Your task to perform on an android device: turn on wifi Image 0: 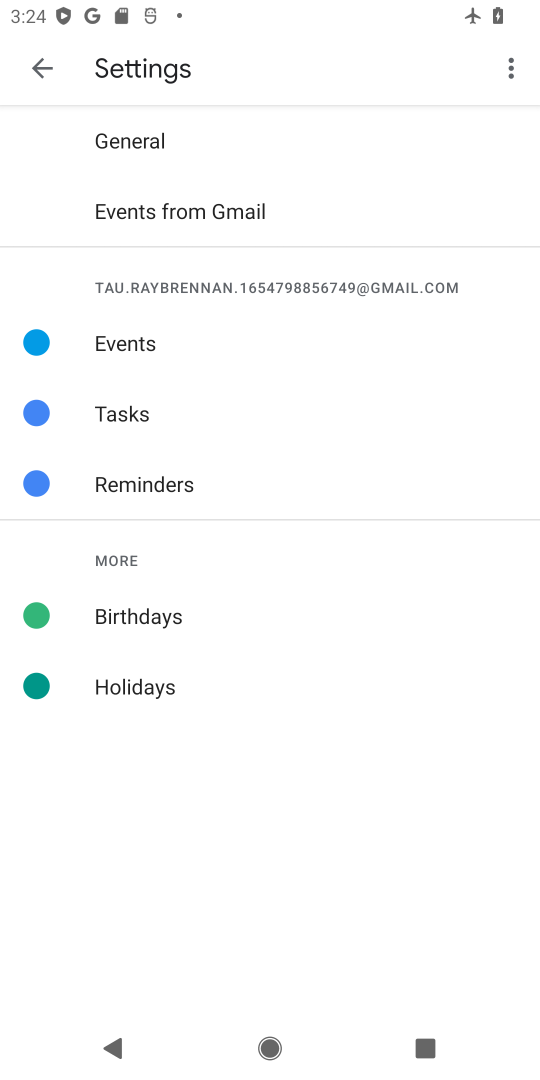
Step 0: press home button
Your task to perform on an android device: turn on wifi Image 1: 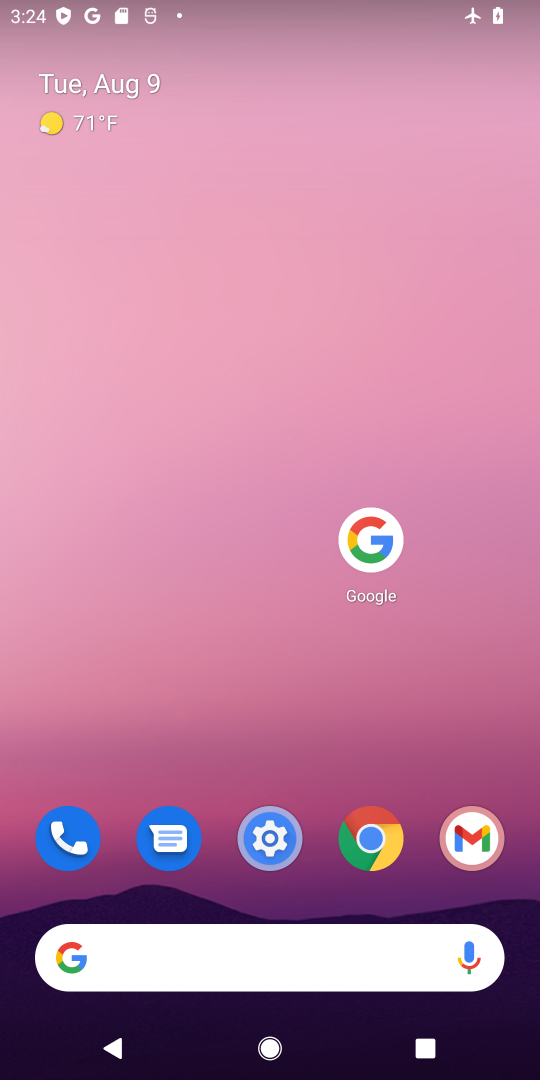
Step 1: drag from (260, 737) to (266, 10)
Your task to perform on an android device: turn on wifi Image 2: 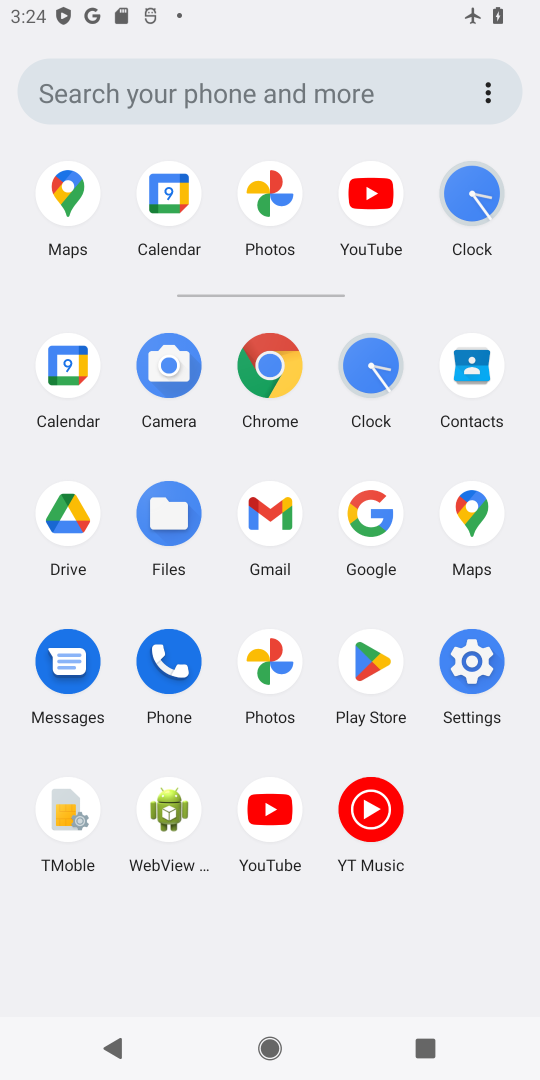
Step 2: click (482, 663)
Your task to perform on an android device: turn on wifi Image 3: 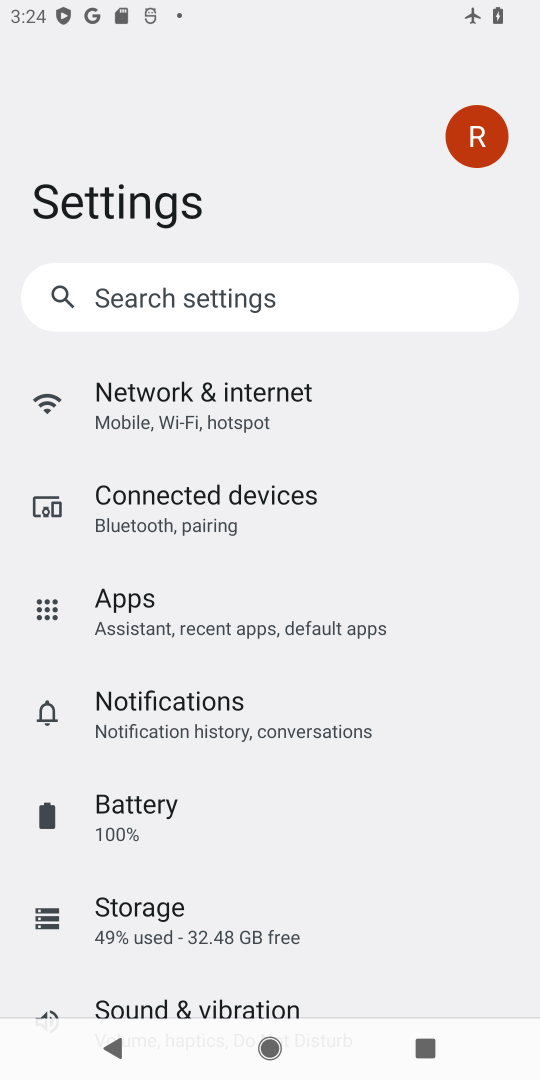
Step 3: click (228, 403)
Your task to perform on an android device: turn on wifi Image 4: 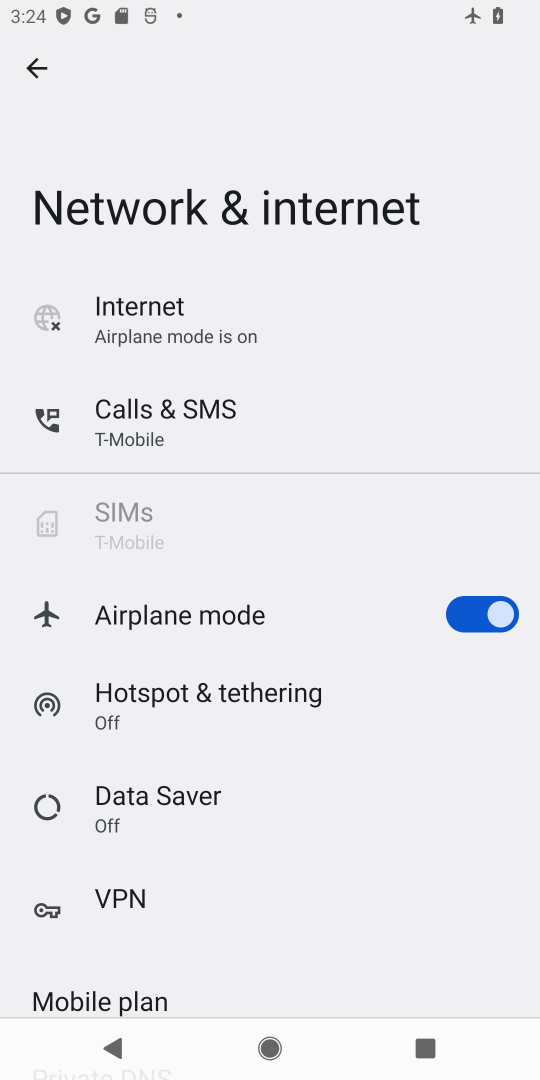
Step 4: click (180, 332)
Your task to perform on an android device: turn on wifi Image 5: 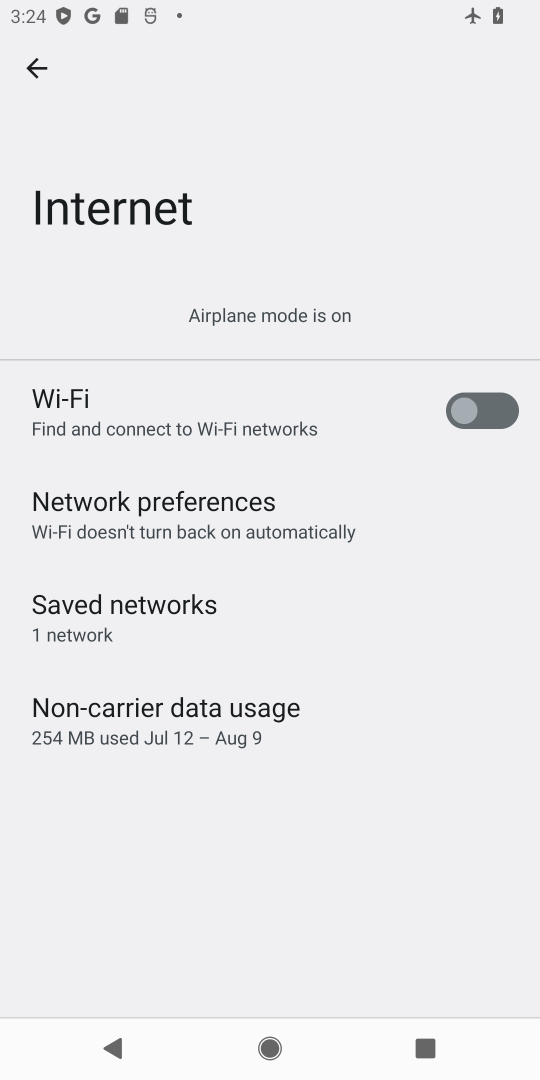
Step 5: click (515, 410)
Your task to perform on an android device: turn on wifi Image 6: 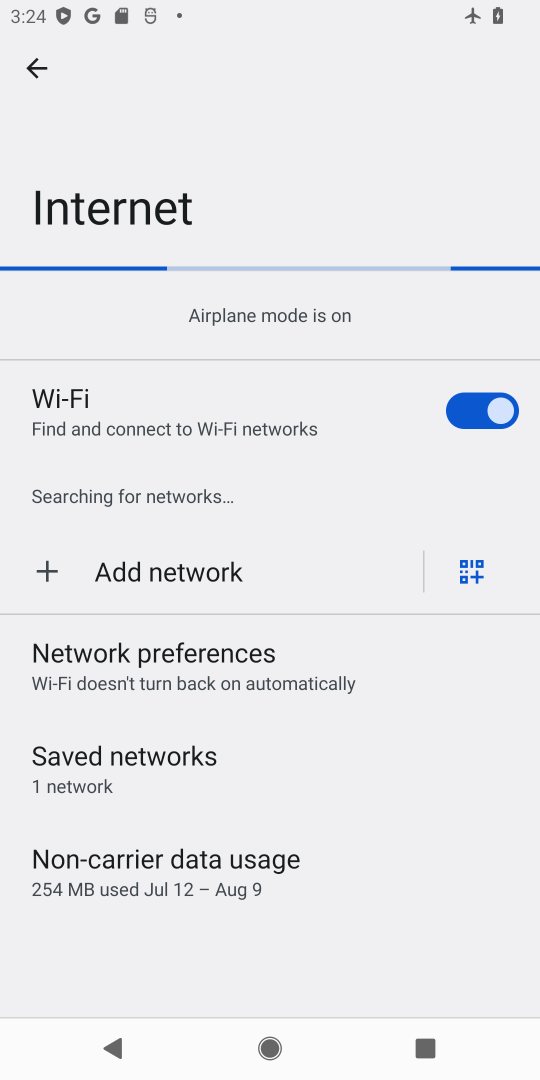
Step 6: task complete